Your task to perform on an android device: set default search engine in the chrome app Image 0: 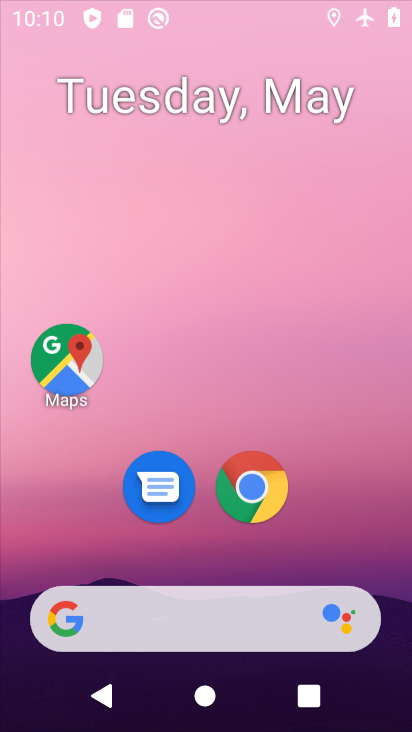
Step 0: click (273, 120)
Your task to perform on an android device: set default search engine in the chrome app Image 1: 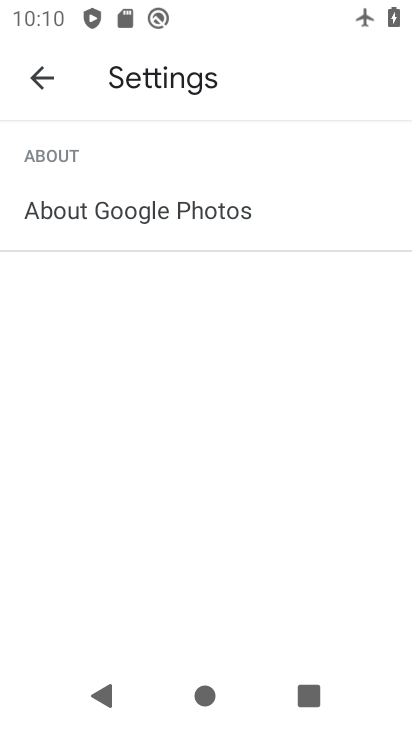
Step 1: drag from (197, 523) to (252, 369)
Your task to perform on an android device: set default search engine in the chrome app Image 2: 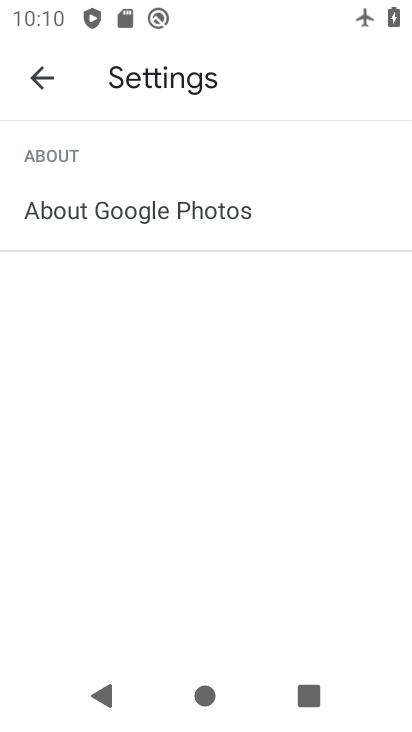
Step 2: press home button
Your task to perform on an android device: set default search engine in the chrome app Image 3: 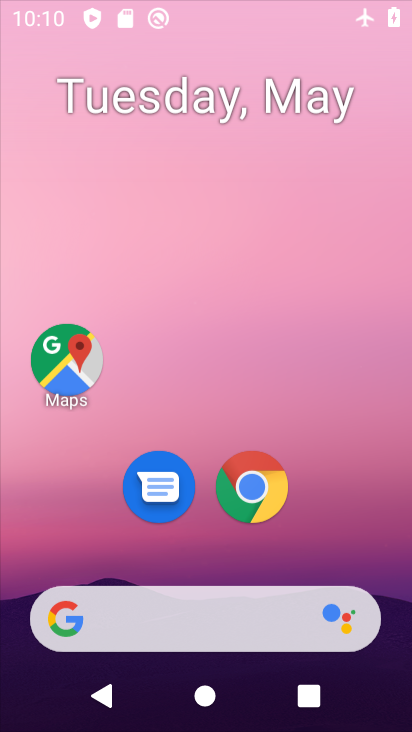
Step 3: drag from (139, 551) to (328, 78)
Your task to perform on an android device: set default search engine in the chrome app Image 4: 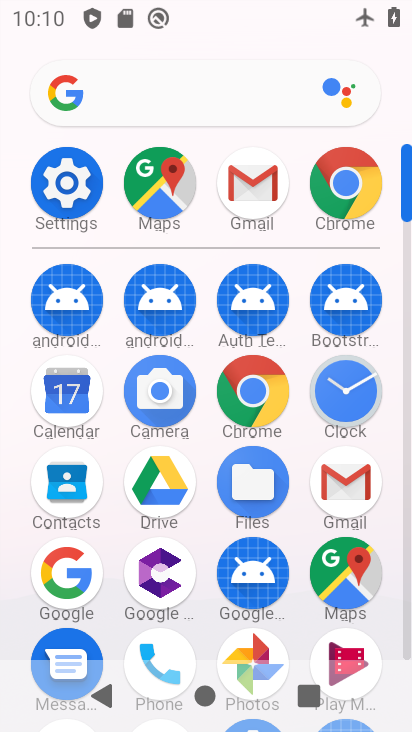
Step 4: click (261, 374)
Your task to perform on an android device: set default search engine in the chrome app Image 5: 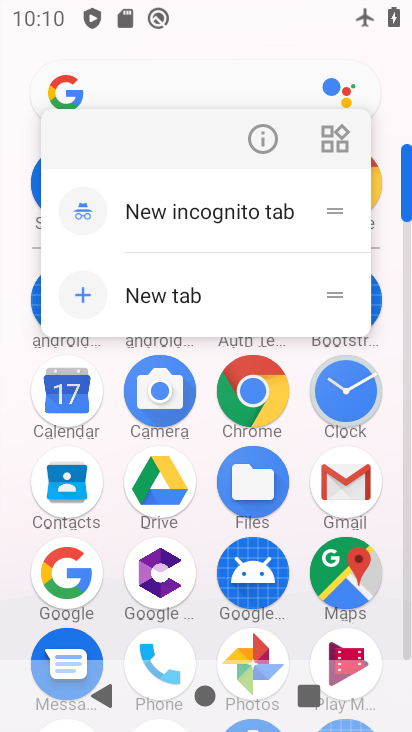
Step 5: click (267, 135)
Your task to perform on an android device: set default search engine in the chrome app Image 6: 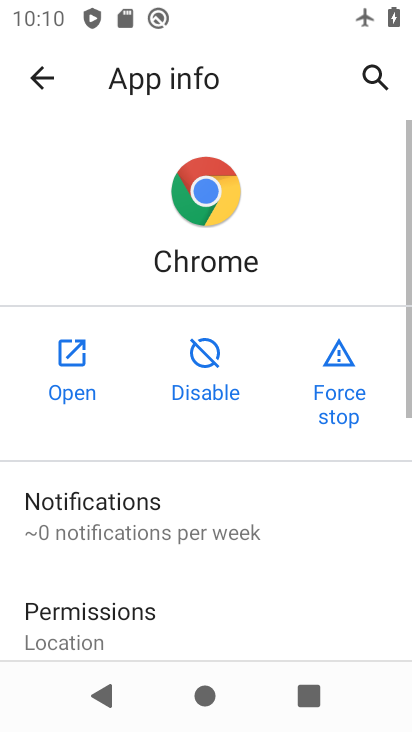
Step 6: click (75, 369)
Your task to perform on an android device: set default search engine in the chrome app Image 7: 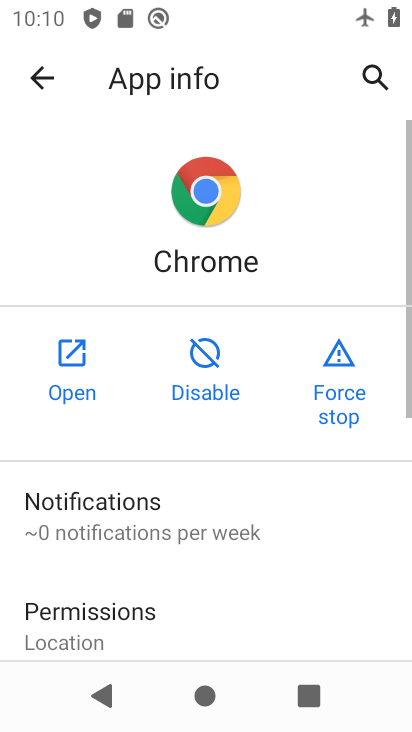
Step 7: click (74, 368)
Your task to perform on an android device: set default search engine in the chrome app Image 8: 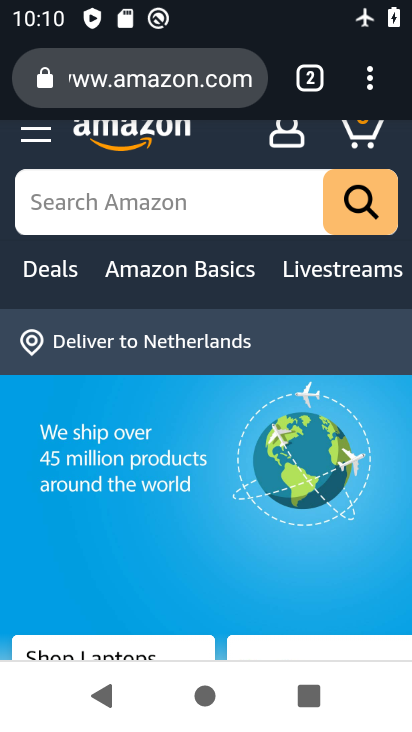
Step 8: click (369, 72)
Your task to perform on an android device: set default search engine in the chrome app Image 9: 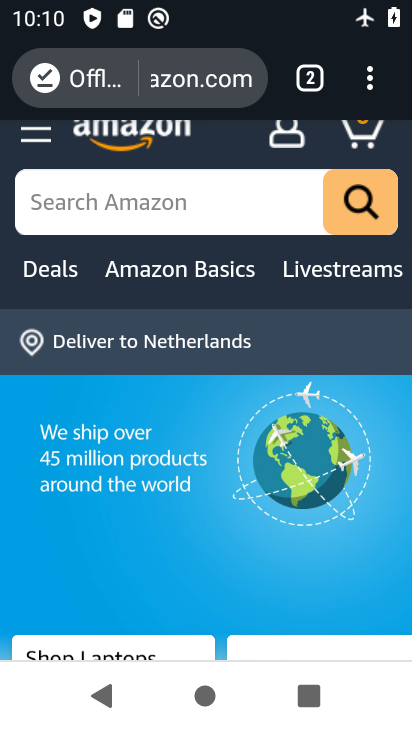
Step 9: click (377, 78)
Your task to perform on an android device: set default search engine in the chrome app Image 10: 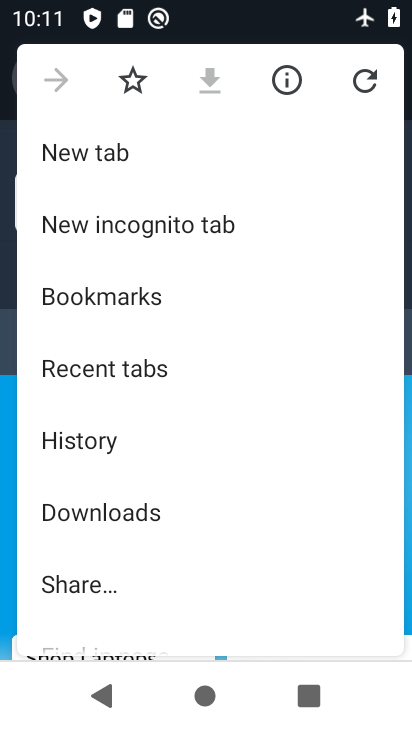
Step 10: drag from (132, 576) to (257, 257)
Your task to perform on an android device: set default search engine in the chrome app Image 11: 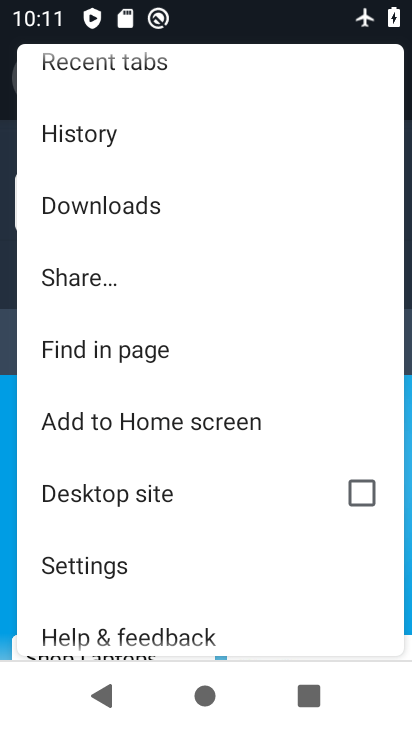
Step 11: click (146, 571)
Your task to perform on an android device: set default search engine in the chrome app Image 12: 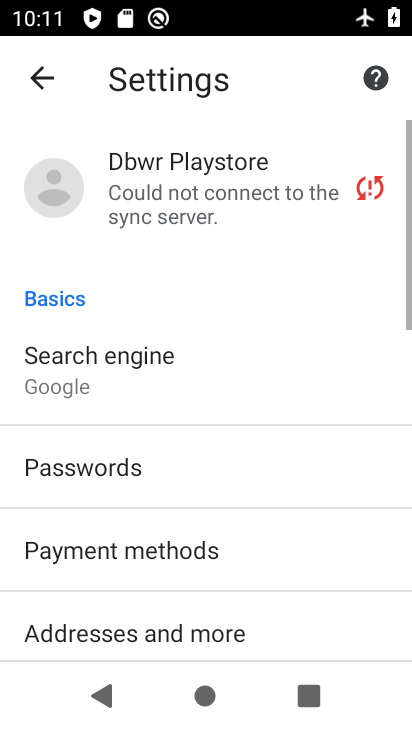
Step 12: drag from (177, 498) to (361, 138)
Your task to perform on an android device: set default search engine in the chrome app Image 13: 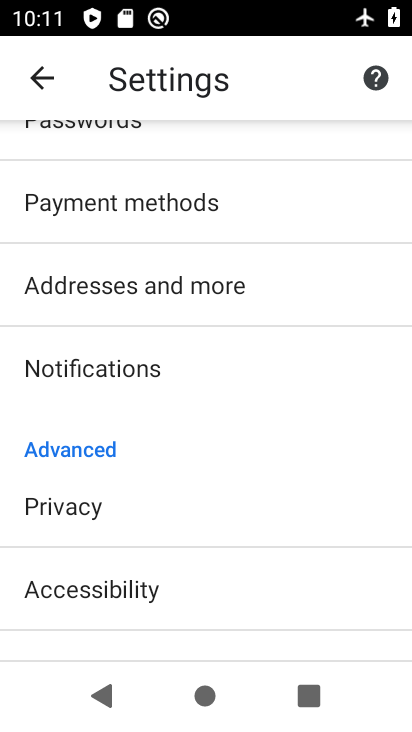
Step 13: drag from (216, 577) to (327, 249)
Your task to perform on an android device: set default search engine in the chrome app Image 14: 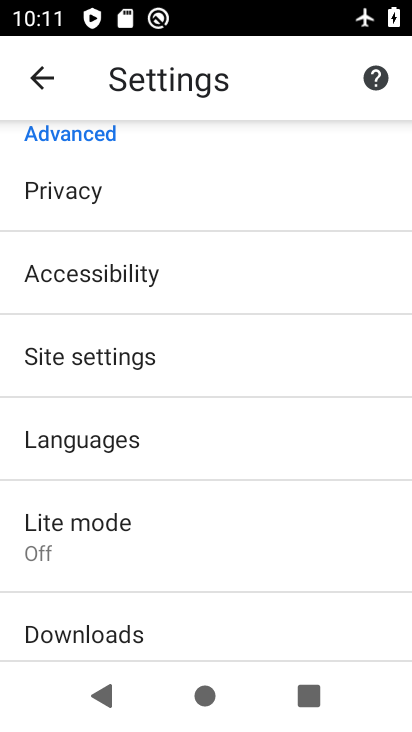
Step 14: drag from (181, 547) to (254, 387)
Your task to perform on an android device: set default search engine in the chrome app Image 15: 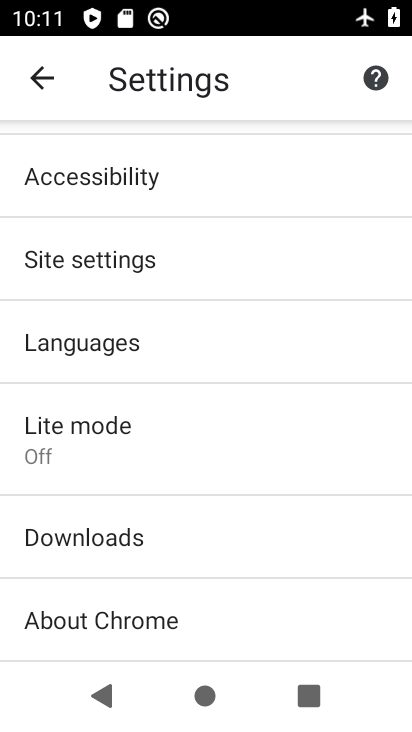
Step 15: drag from (189, 357) to (215, 713)
Your task to perform on an android device: set default search engine in the chrome app Image 16: 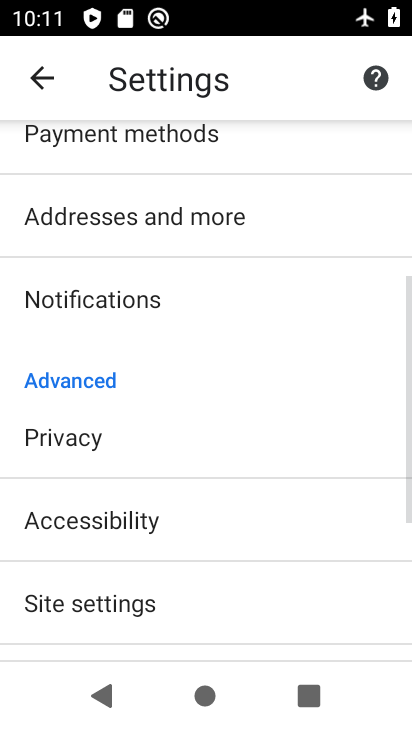
Step 16: drag from (210, 326) to (286, 728)
Your task to perform on an android device: set default search engine in the chrome app Image 17: 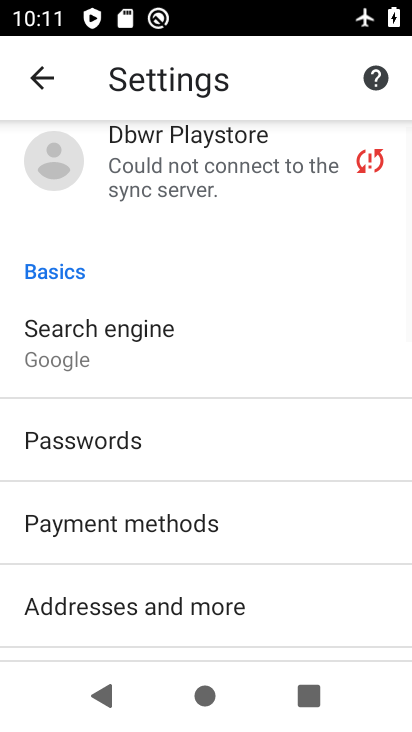
Step 17: click (147, 313)
Your task to perform on an android device: set default search engine in the chrome app Image 18: 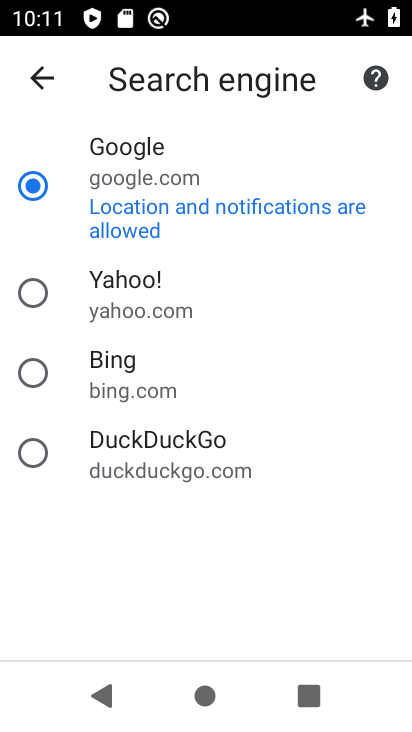
Step 18: click (109, 288)
Your task to perform on an android device: set default search engine in the chrome app Image 19: 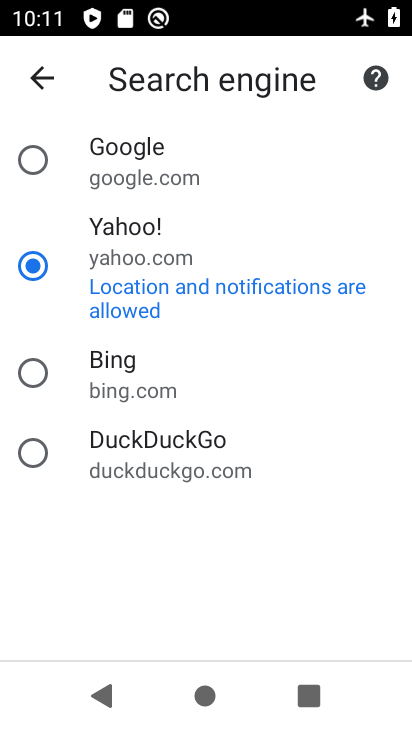
Step 19: task complete